Your task to perform on an android device: Search for Mexican restaurants on Maps Image 0: 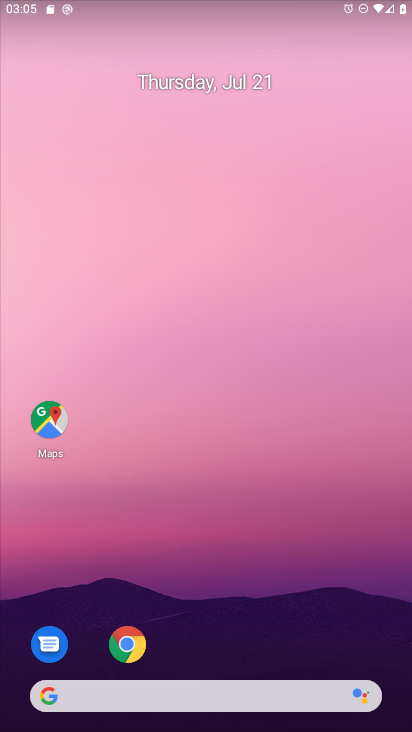
Step 0: click (54, 427)
Your task to perform on an android device: Search for Mexican restaurants on Maps Image 1: 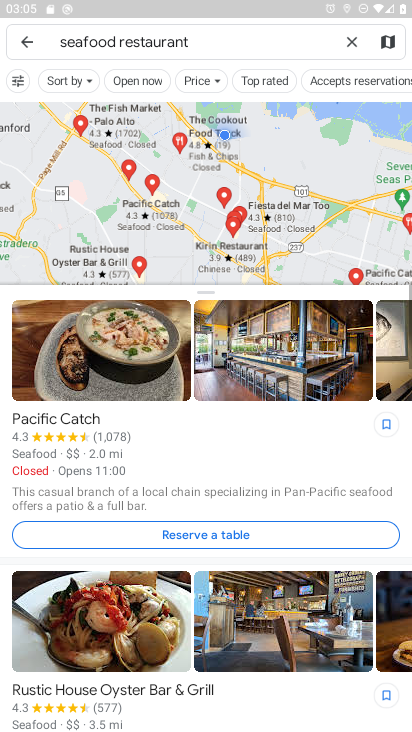
Step 1: click (353, 46)
Your task to perform on an android device: Search for Mexican restaurants on Maps Image 2: 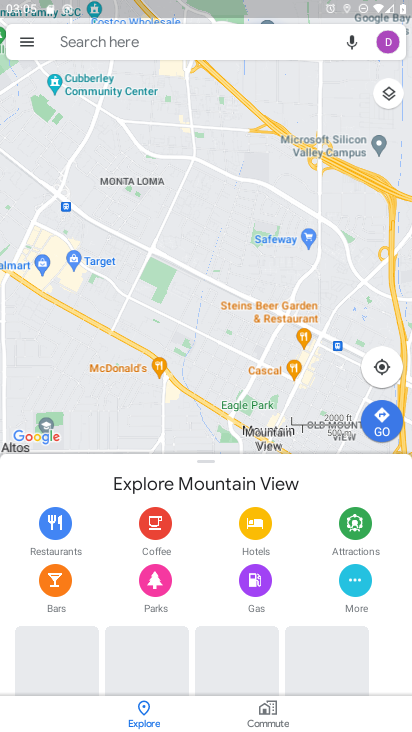
Step 2: click (252, 46)
Your task to perform on an android device: Search for Mexican restaurants on Maps Image 3: 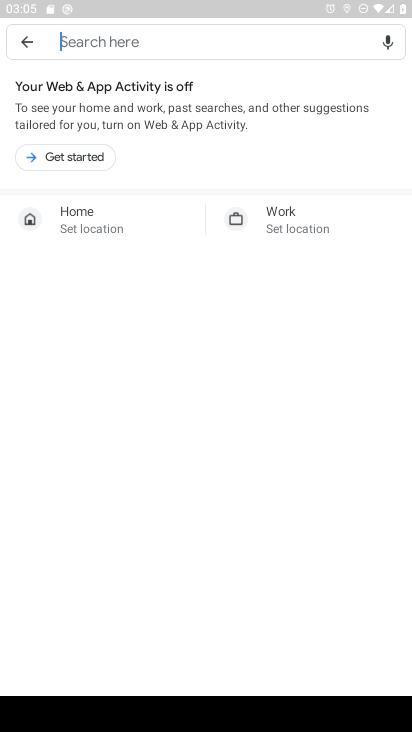
Step 3: type "Mexican restaurants "
Your task to perform on an android device: Search for Mexican restaurants on Maps Image 4: 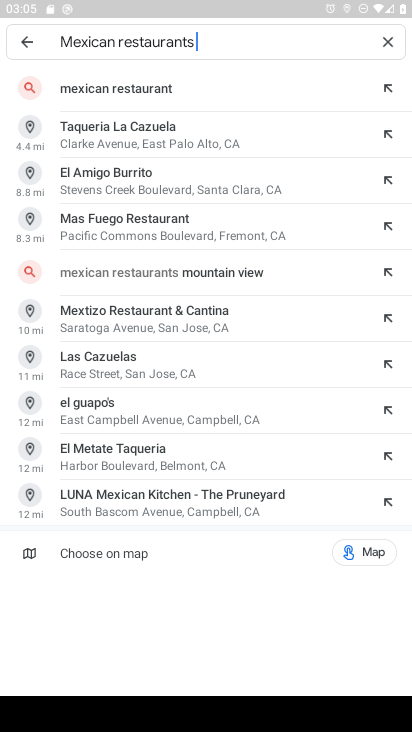
Step 4: click (99, 83)
Your task to perform on an android device: Search for Mexican restaurants on Maps Image 5: 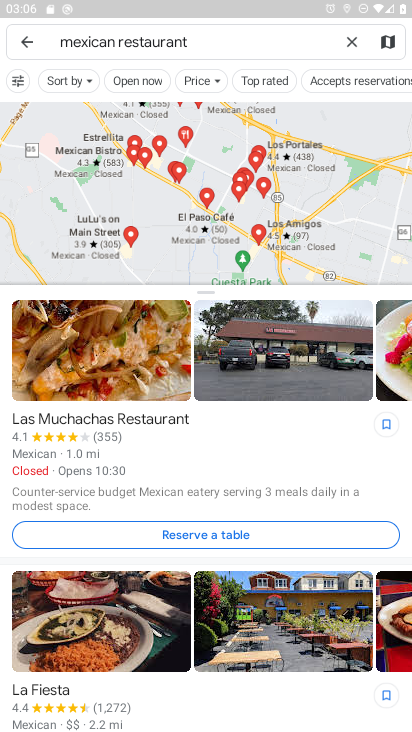
Step 5: task complete